Your task to perform on an android device: Go to sound settings Image 0: 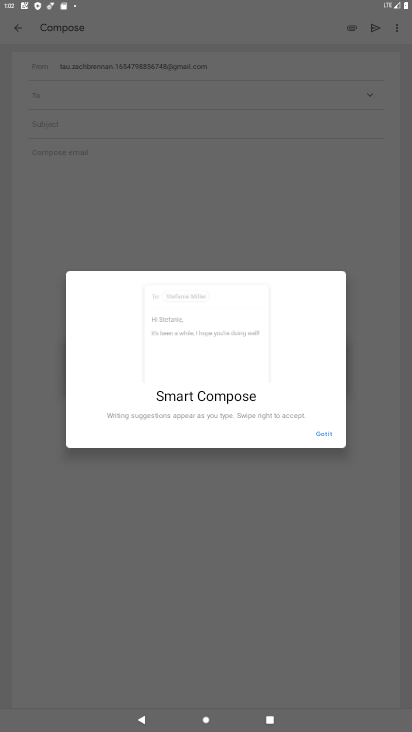
Step 0: press home button
Your task to perform on an android device: Go to sound settings Image 1: 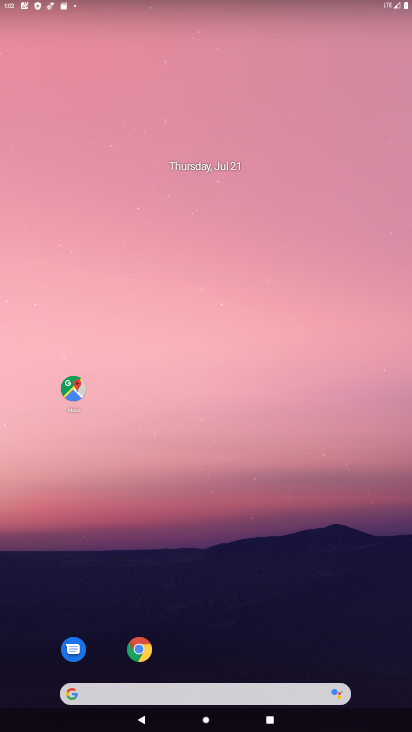
Step 1: drag from (175, 659) to (171, 271)
Your task to perform on an android device: Go to sound settings Image 2: 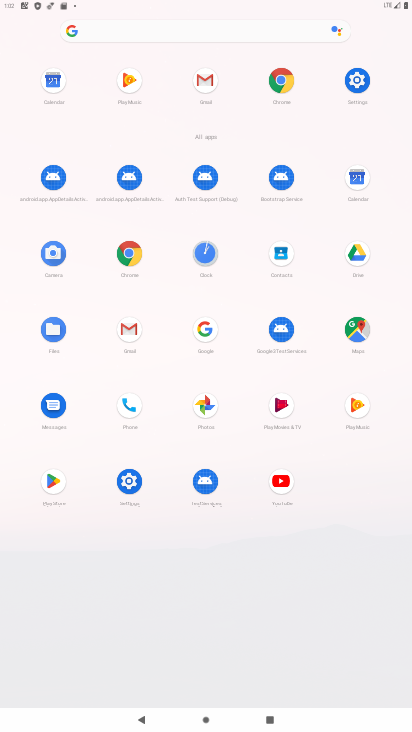
Step 2: click (353, 80)
Your task to perform on an android device: Go to sound settings Image 3: 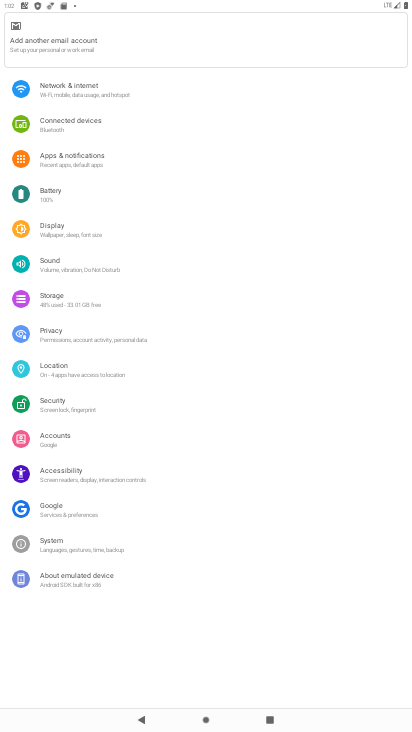
Step 3: click (56, 272)
Your task to perform on an android device: Go to sound settings Image 4: 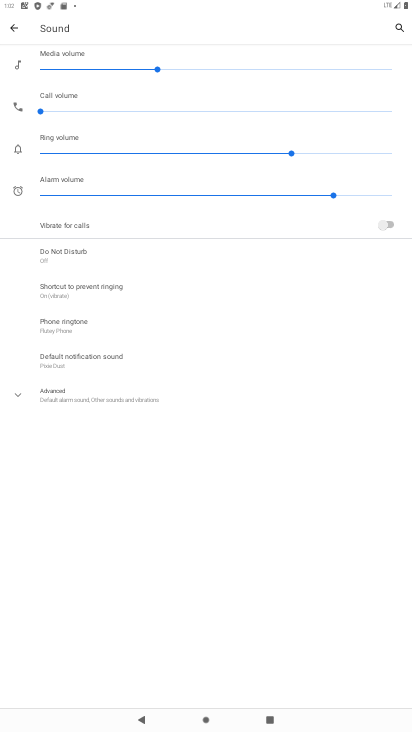
Step 4: click (94, 392)
Your task to perform on an android device: Go to sound settings Image 5: 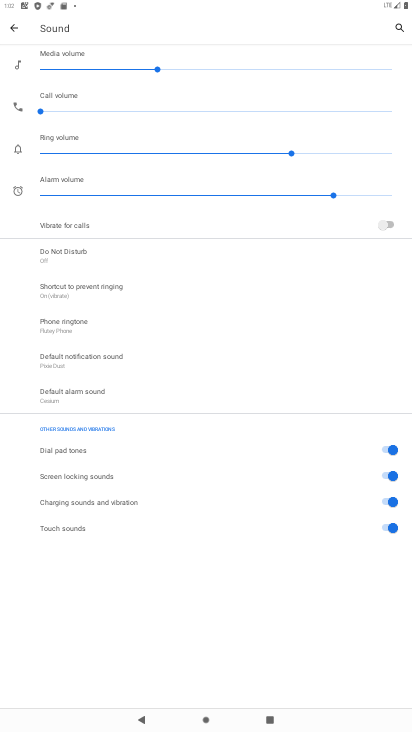
Step 5: task complete